Your task to perform on an android device: Go to Reddit.com Image 0: 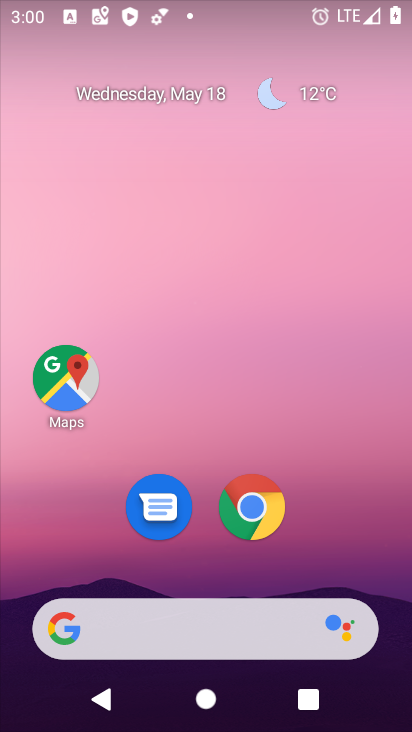
Step 0: click (256, 508)
Your task to perform on an android device: Go to Reddit.com Image 1: 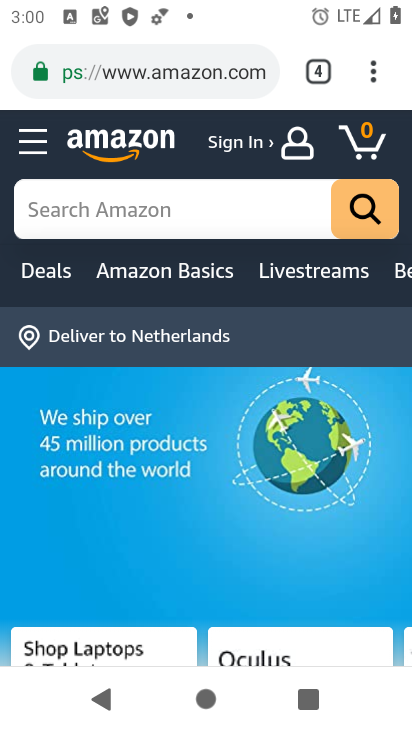
Step 1: click (132, 74)
Your task to perform on an android device: Go to Reddit.com Image 2: 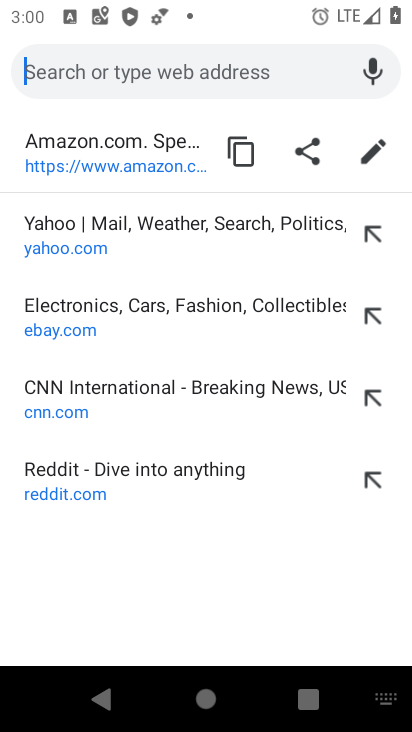
Step 2: type "reddit.com"
Your task to perform on an android device: Go to Reddit.com Image 3: 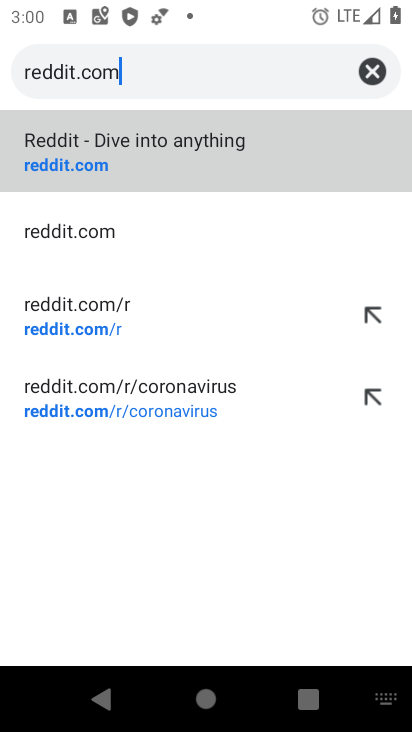
Step 3: click (122, 138)
Your task to perform on an android device: Go to Reddit.com Image 4: 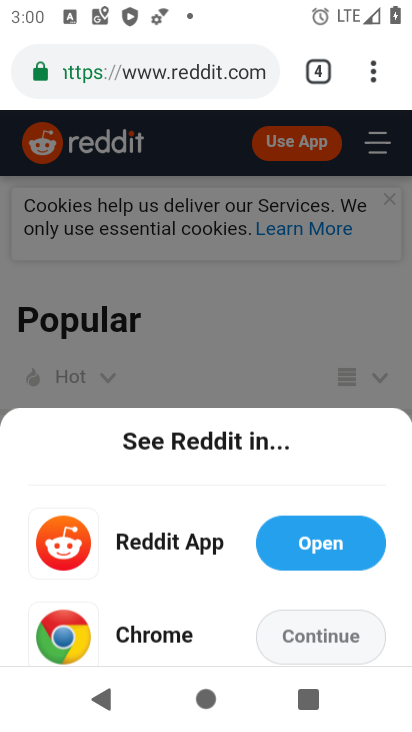
Step 4: task complete